Your task to perform on an android device: Go to privacy settings Image 0: 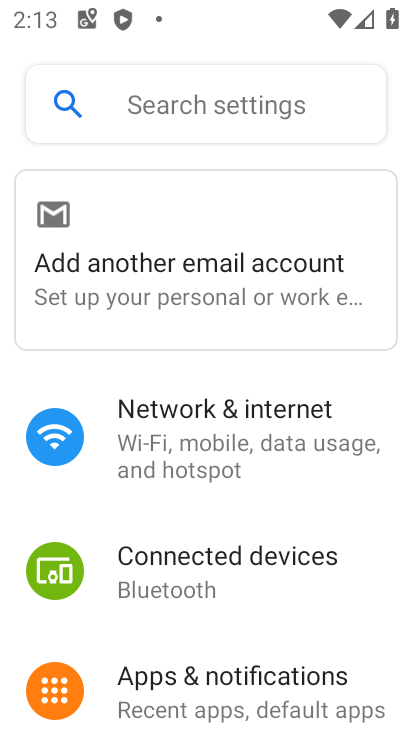
Step 0: drag from (299, 553) to (296, 110)
Your task to perform on an android device: Go to privacy settings Image 1: 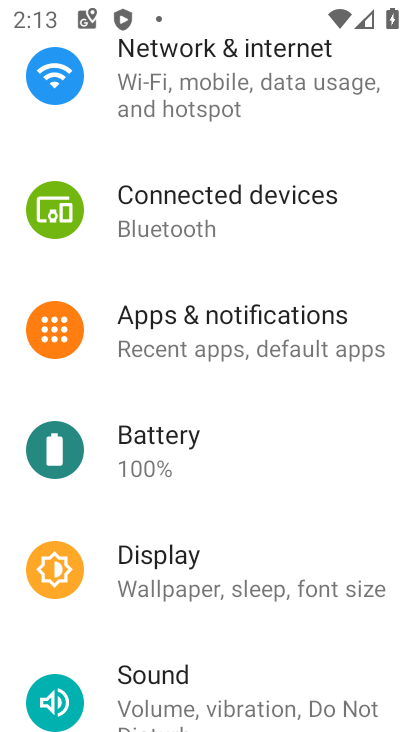
Step 1: drag from (289, 580) to (260, 177)
Your task to perform on an android device: Go to privacy settings Image 2: 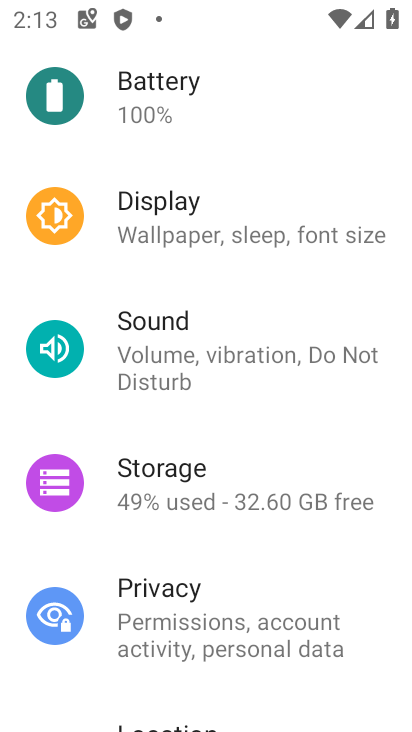
Step 2: click (187, 612)
Your task to perform on an android device: Go to privacy settings Image 3: 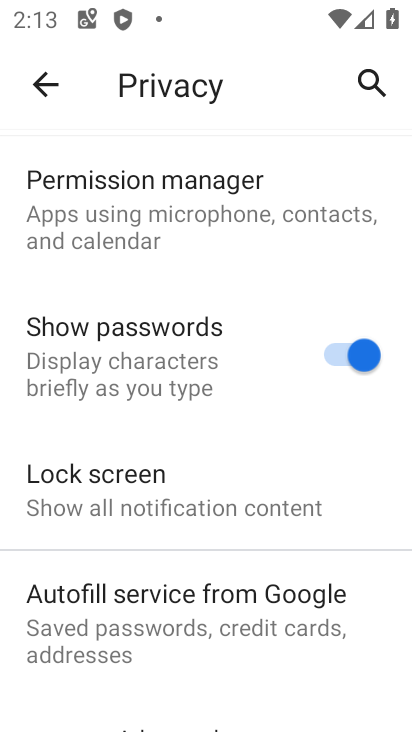
Step 3: task complete